Your task to perform on an android device: Open Chrome and go to settings Image 0: 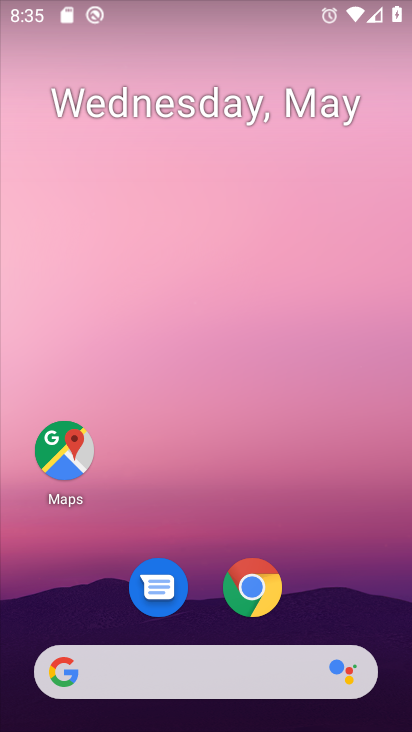
Step 0: click (267, 583)
Your task to perform on an android device: Open Chrome and go to settings Image 1: 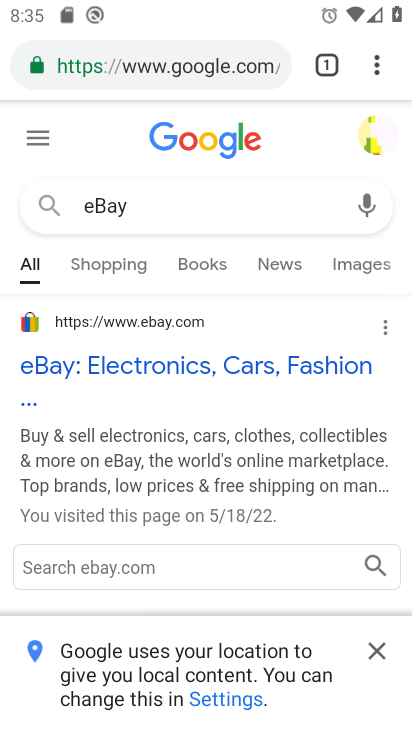
Step 1: click (370, 61)
Your task to perform on an android device: Open Chrome and go to settings Image 2: 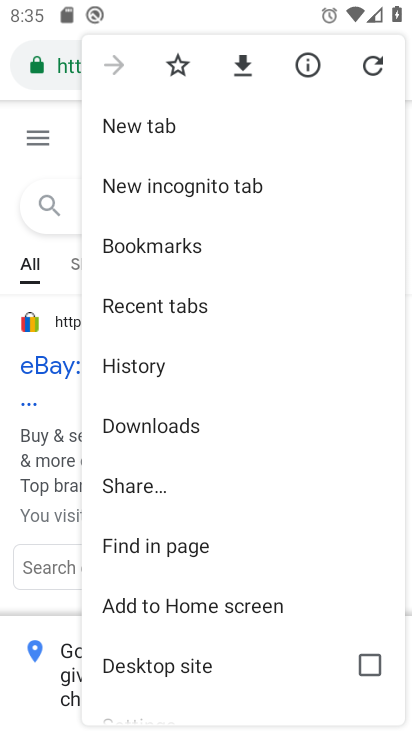
Step 2: drag from (167, 644) to (229, 381)
Your task to perform on an android device: Open Chrome and go to settings Image 3: 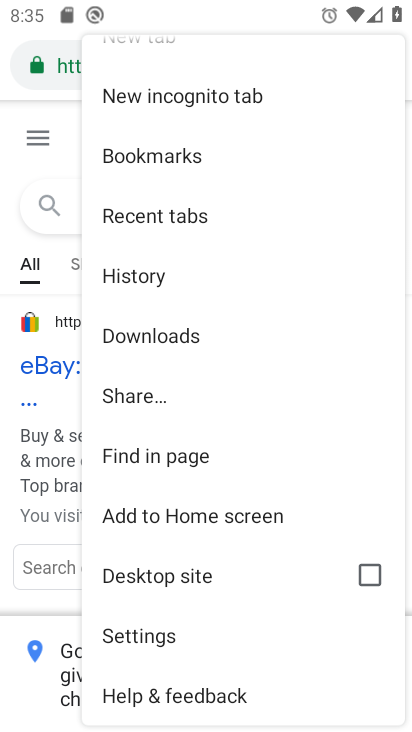
Step 3: click (151, 638)
Your task to perform on an android device: Open Chrome and go to settings Image 4: 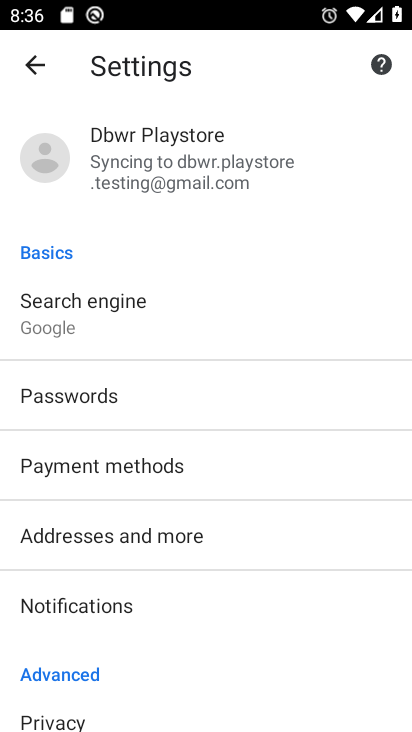
Step 4: task complete